Your task to perform on an android device: Check the weather Image 0: 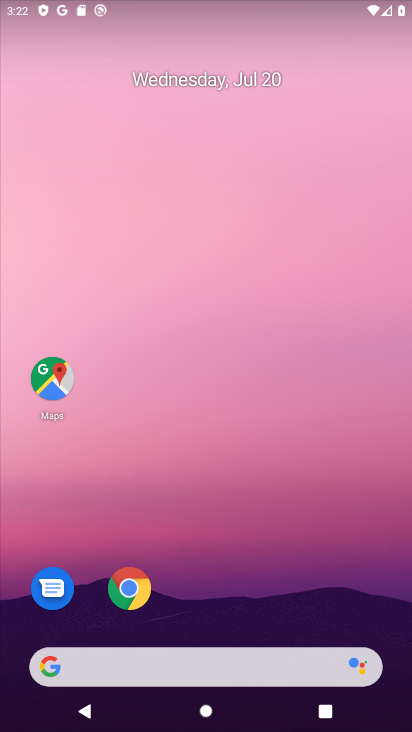
Step 0: click (124, 660)
Your task to perform on an android device: Check the weather Image 1: 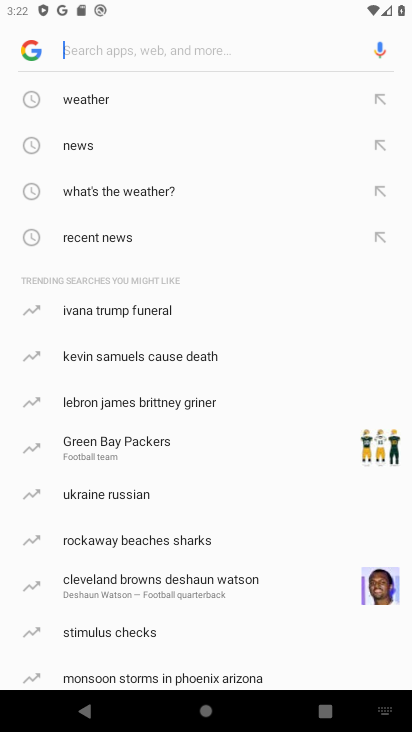
Step 1: click (84, 84)
Your task to perform on an android device: Check the weather Image 2: 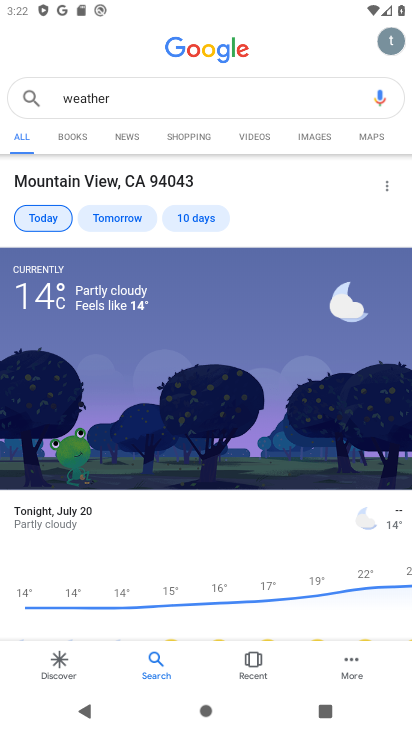
Step 2: task complete